Your task to perform on an android device: turn notification dots on Image 0: 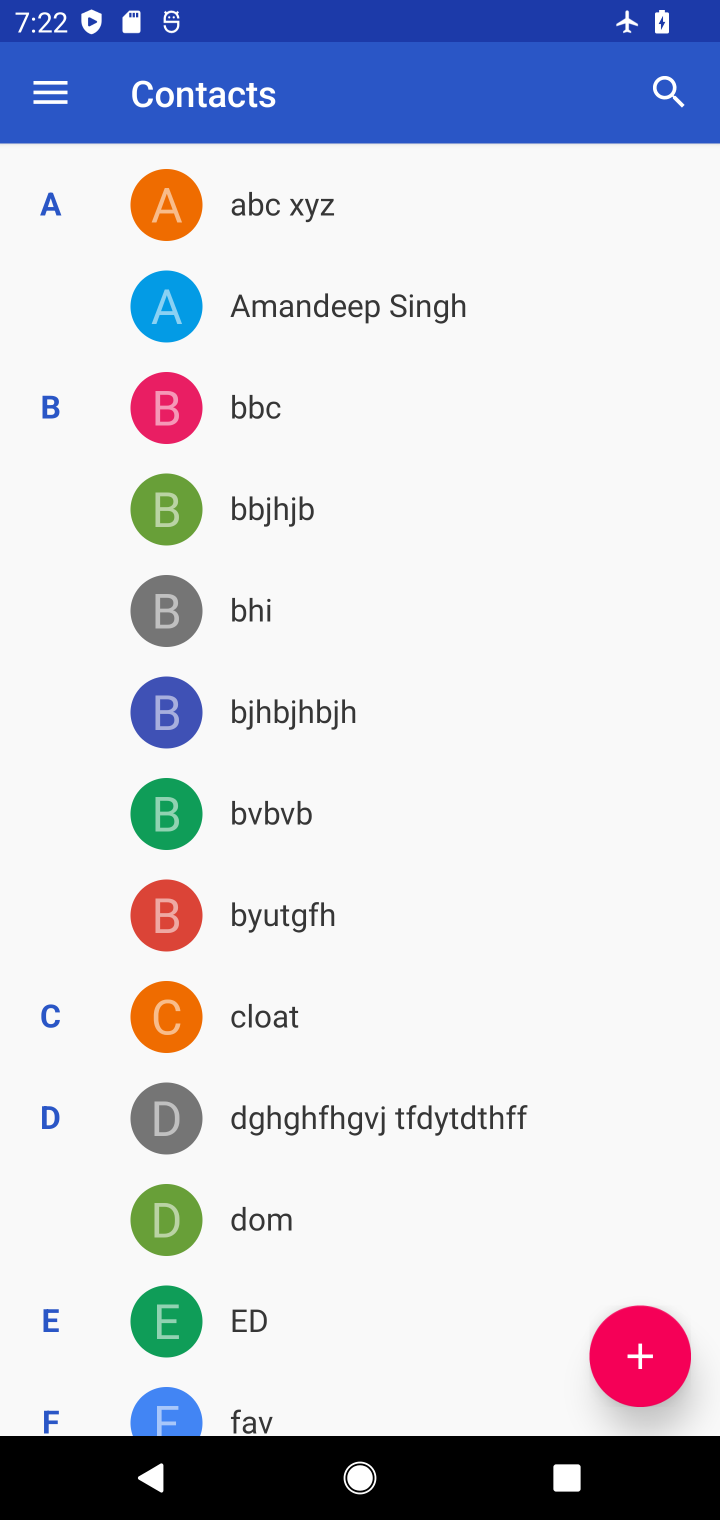
Step 0: press home button
Your task to perform on an android device: turn notification dots on Image 1: 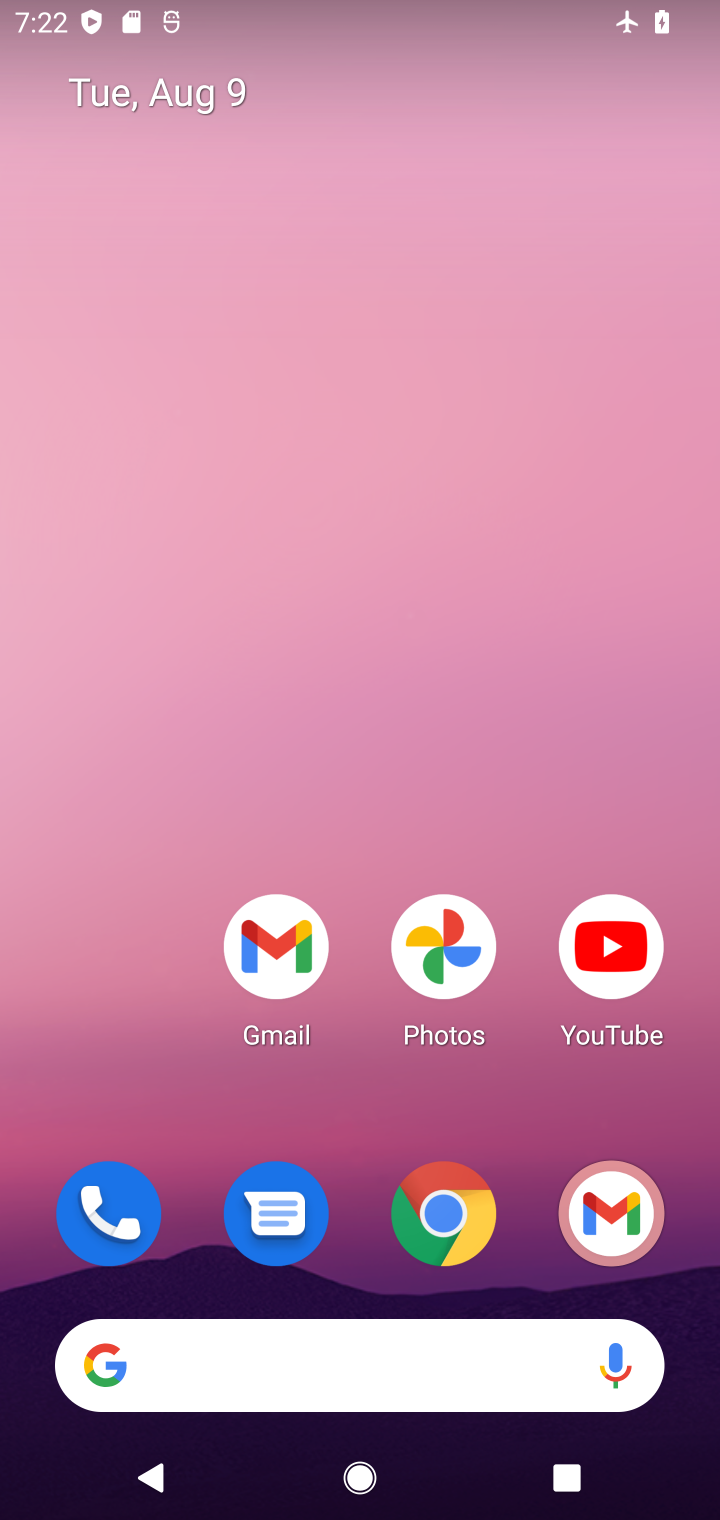
Step 1: drag from (469, 1306) to (261, 0)
Your task to perform on an android device: turn notification dots on Image 2: 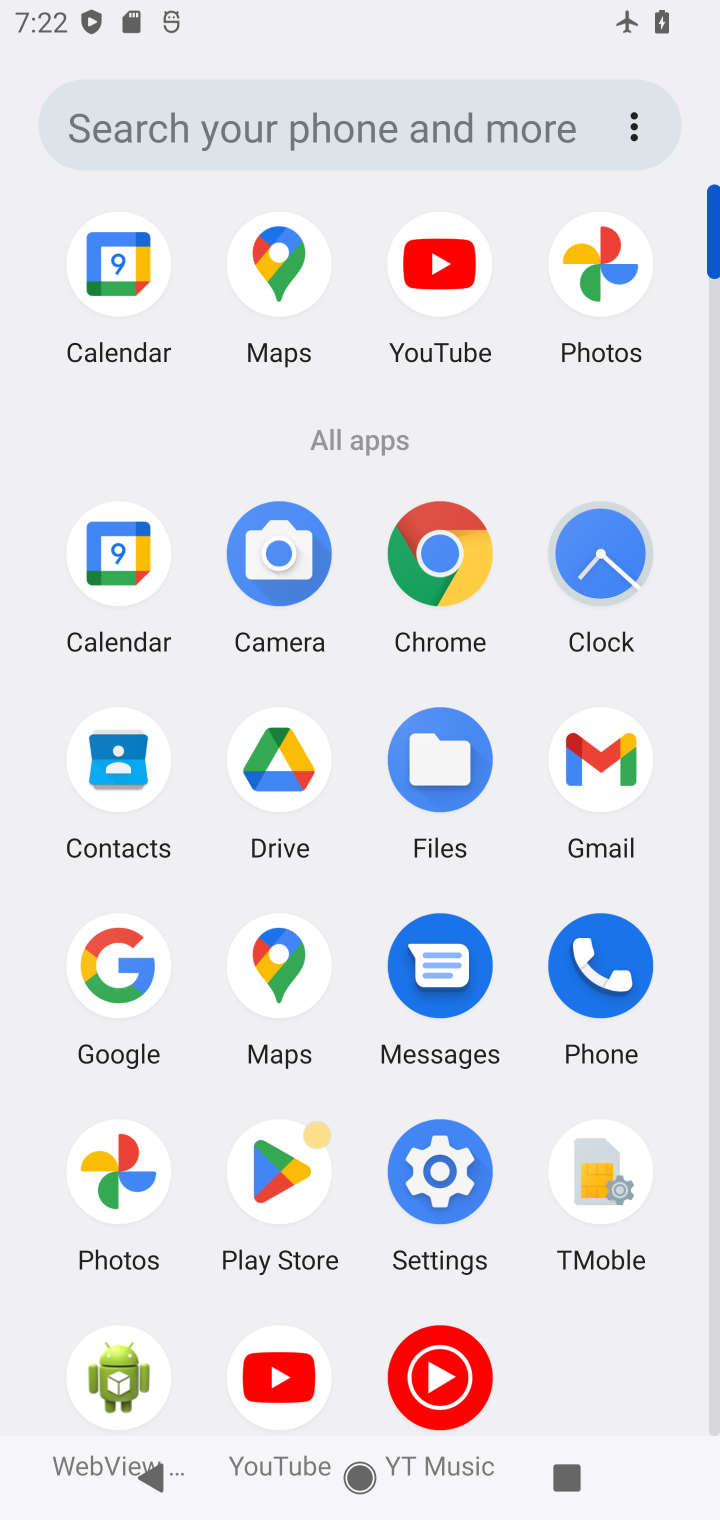
Step 2: click (447, 1137)
Your task to perform on an android device: turn notification dots on Image 3: 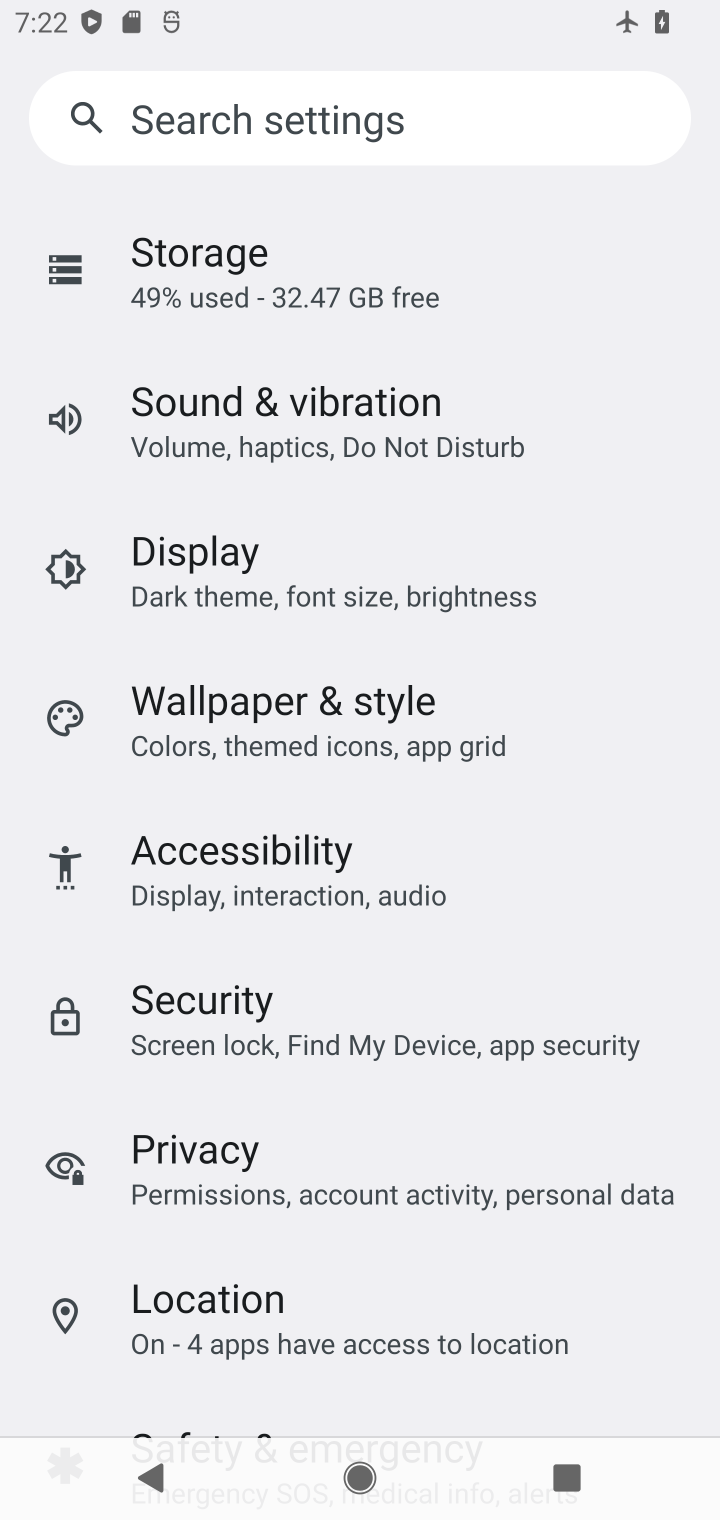
Step 3: drag from (494, 955) to (638, 52)
Your task to perform on an android device: turn notification dots on Image 4: 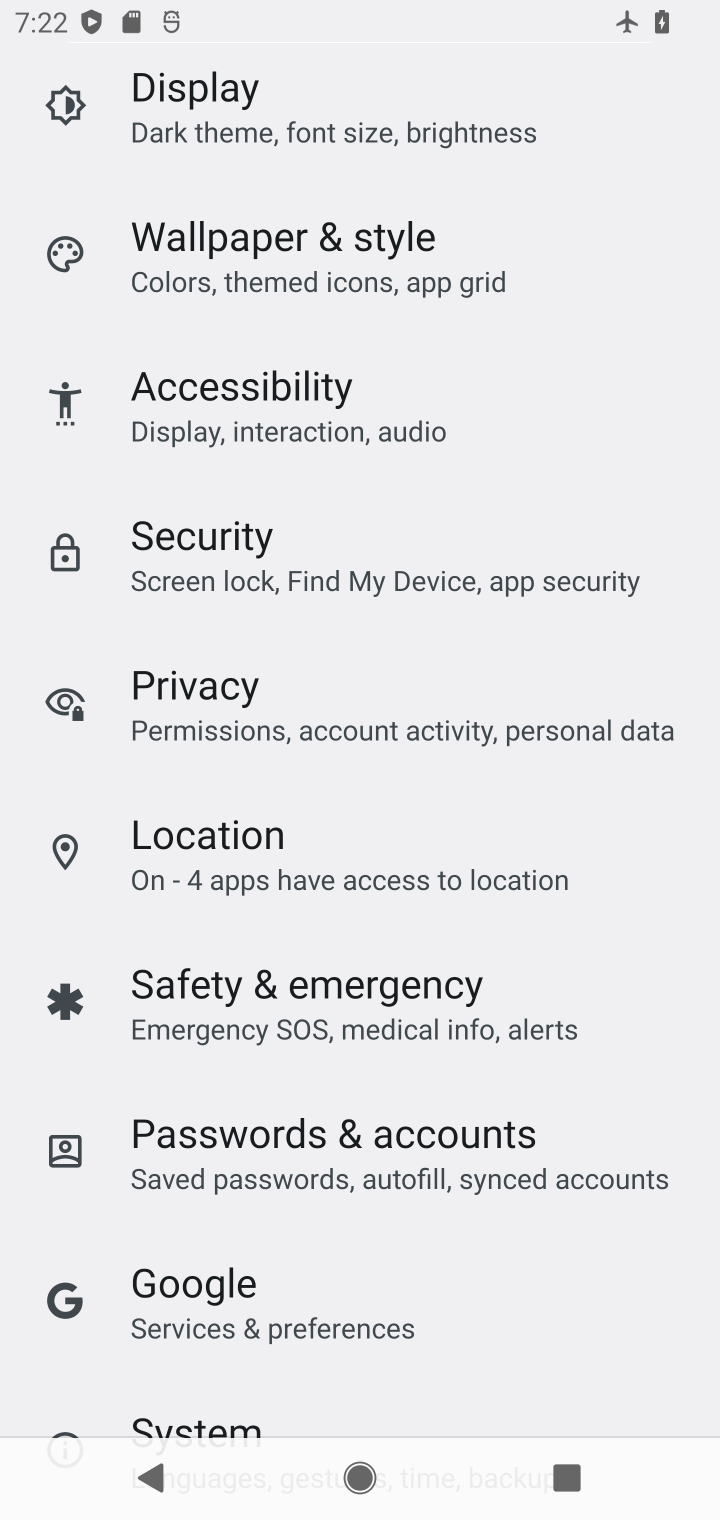
Step 4: drag from (613, 348) to (421, 1219)
Your task to perform on an android device: turn notification dots on Image 5: 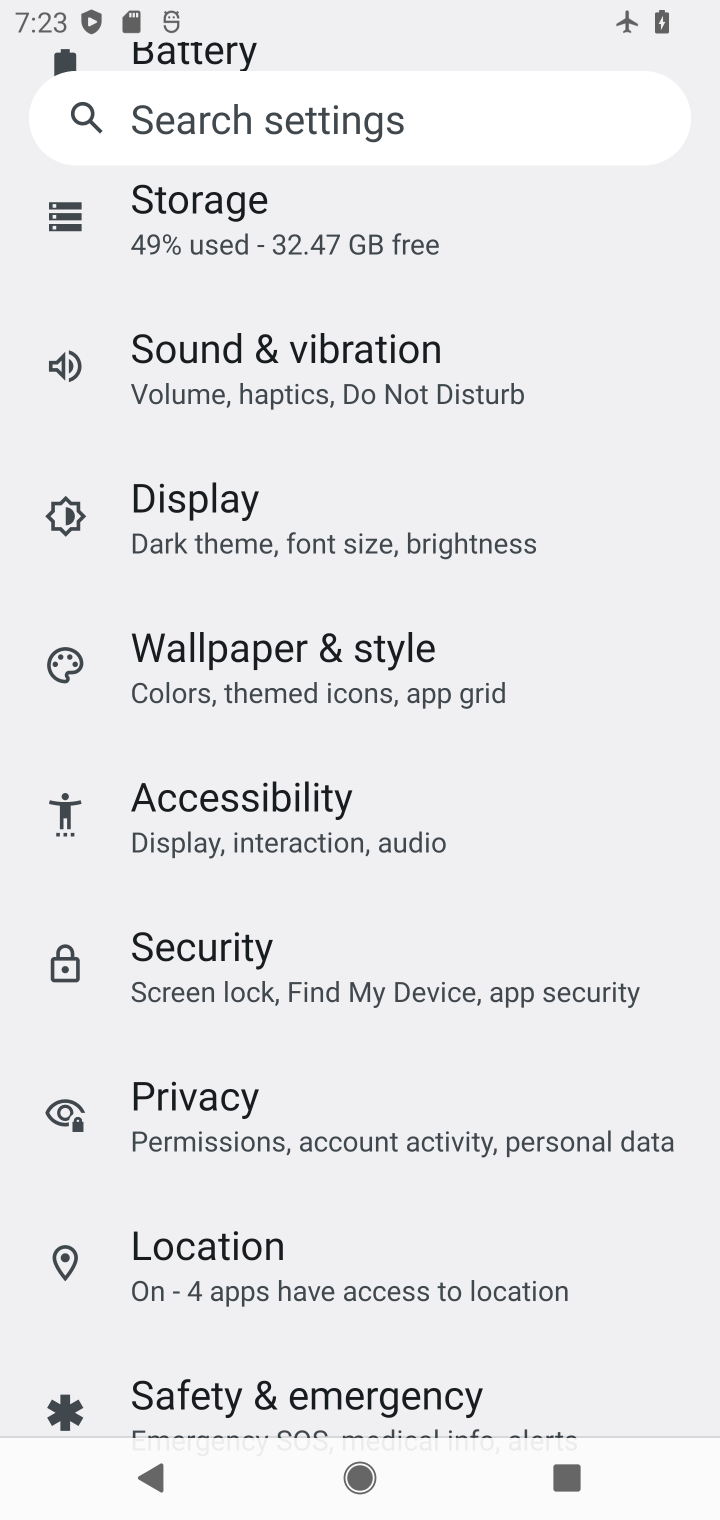
Step 5: drag from (210, 430) to (90, 1123)
Your task to perform on an android device: turn notification dots on Image 6: 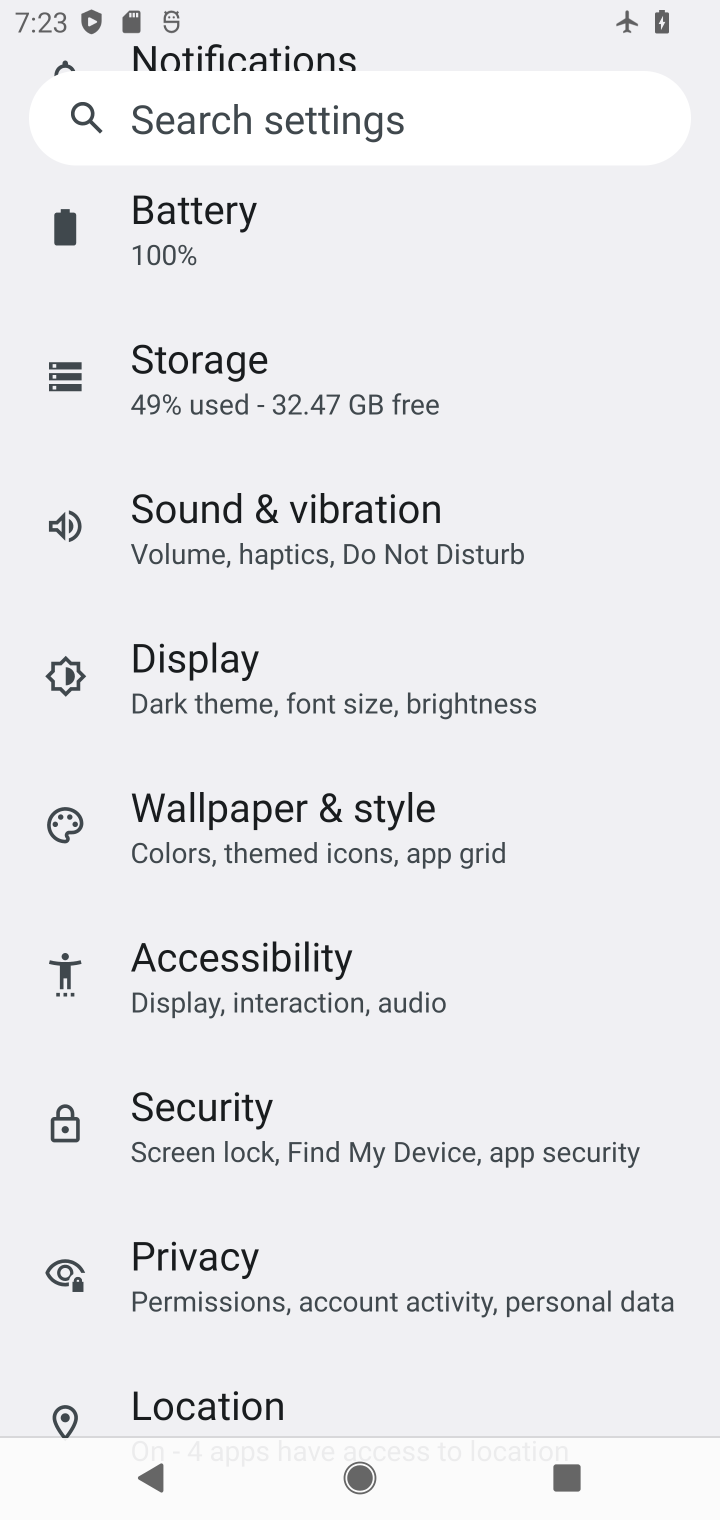
Step 6: drag from (88, 277) to (77, 967)
Your task to perform on an android device: turn notification dots on Image 7: 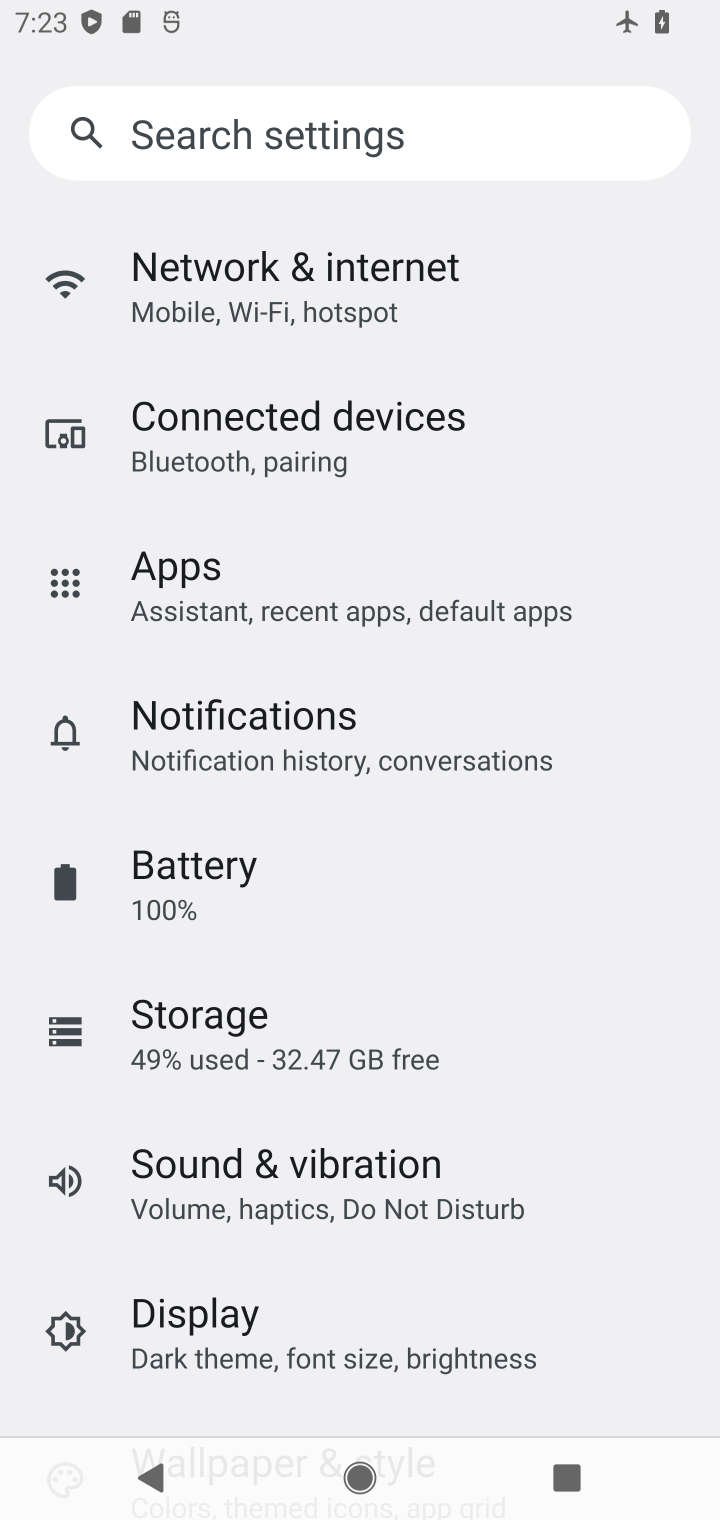
Step 7: click (305, 662)
Your task to perform on an android device: turn notification dots on Image 8: 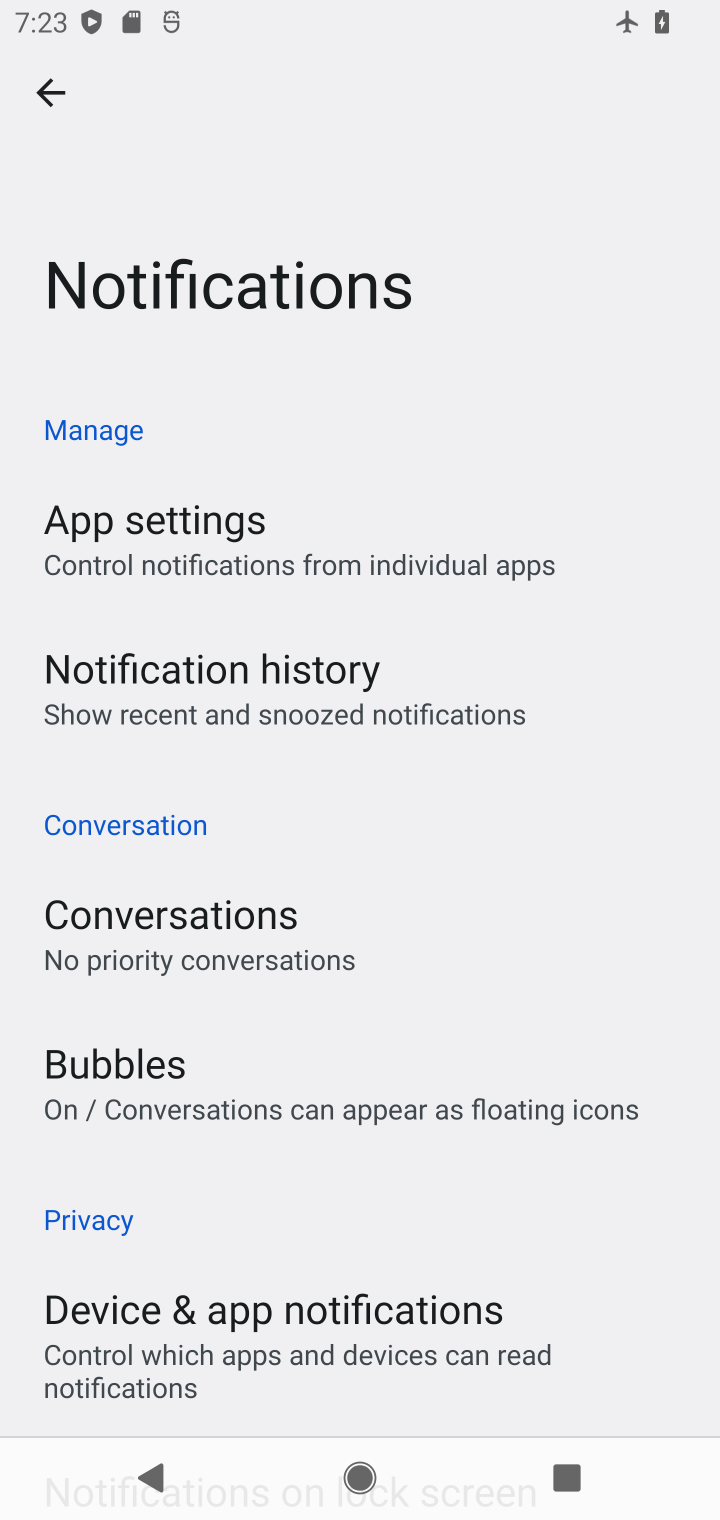
Step 8: task complete